Your task to perform on an android device: Open location settings Image 0: 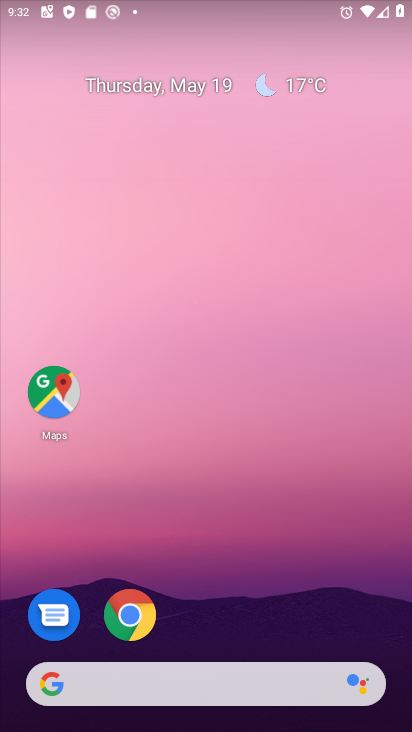
Step 0: press home button
Your task to perform on an android device: Open location settings Image 1: 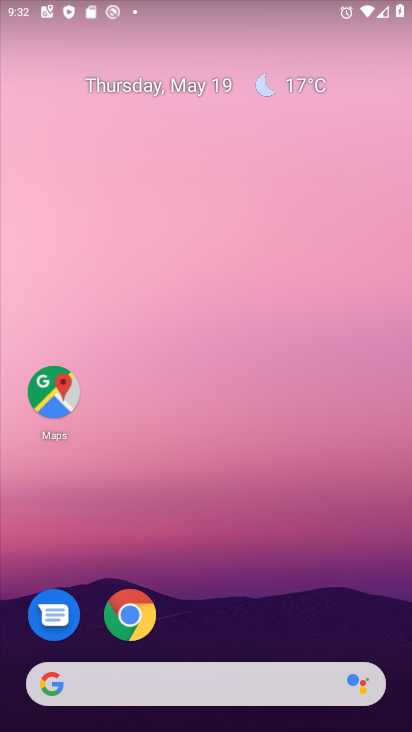
Step 1: drag from (308, 599) to (411, 145)
Your task to perform on an android device: Open location settings Image 2: 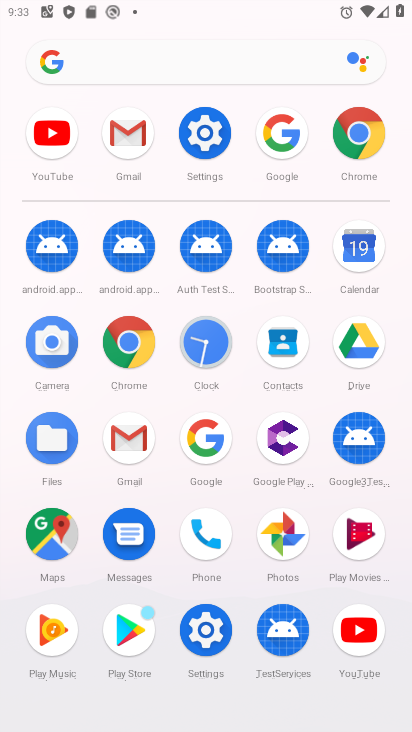
Step 2: click (219, 142)
Your task to perform on an android device: Open location settings Image 3: 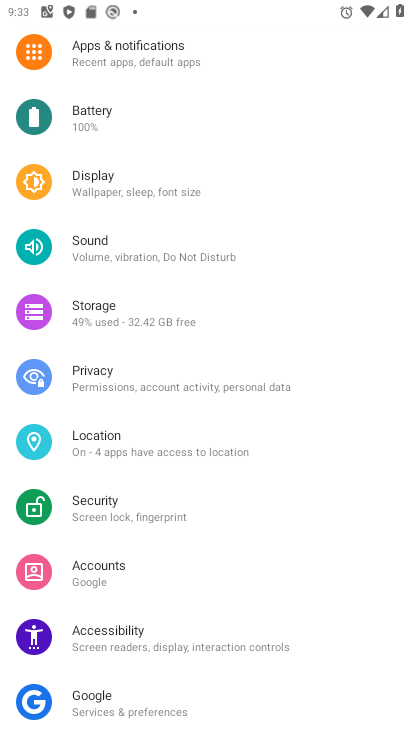
Step 3: click (227, 443)
Your task to perform on an android device: Open location settings Image 4: 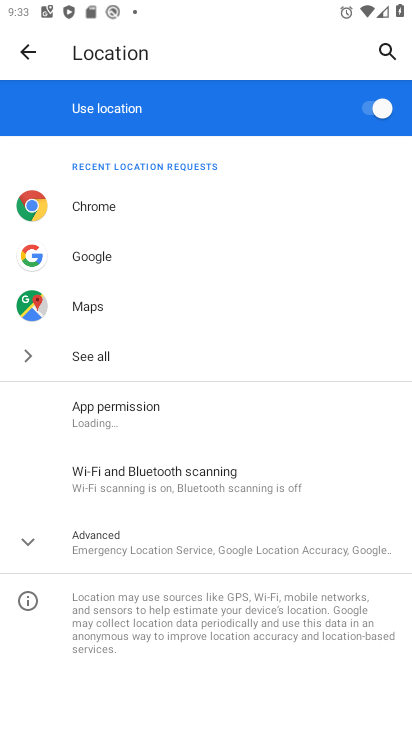
Step 4: task complete